Your task to perform on an android device: allow cookies in the chrome app Image 0: 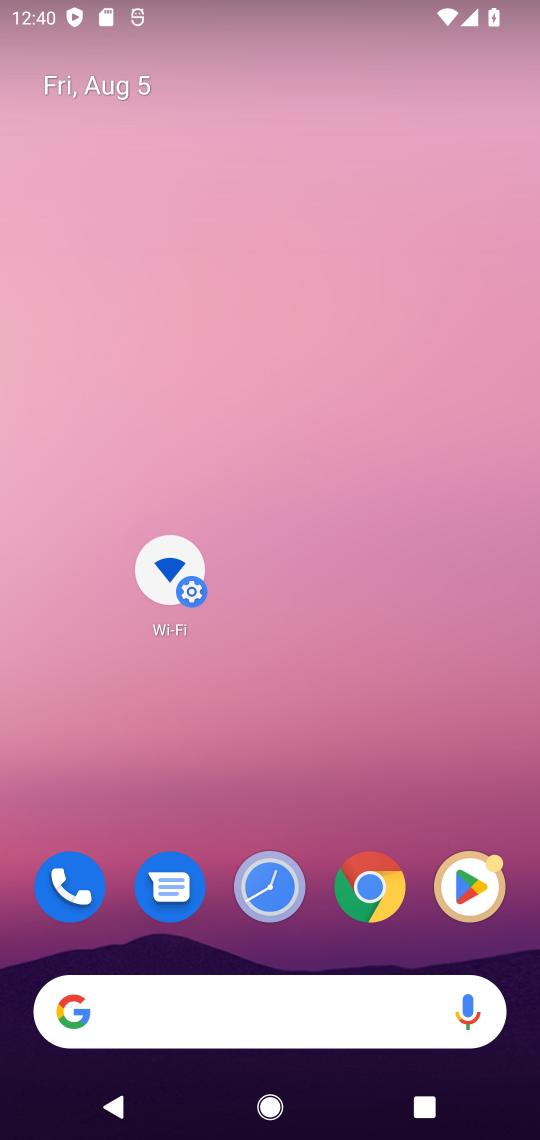
Step 0: click (365, 894)
Your task to perform on an android device: allow cookies in the chrome app Image 1: 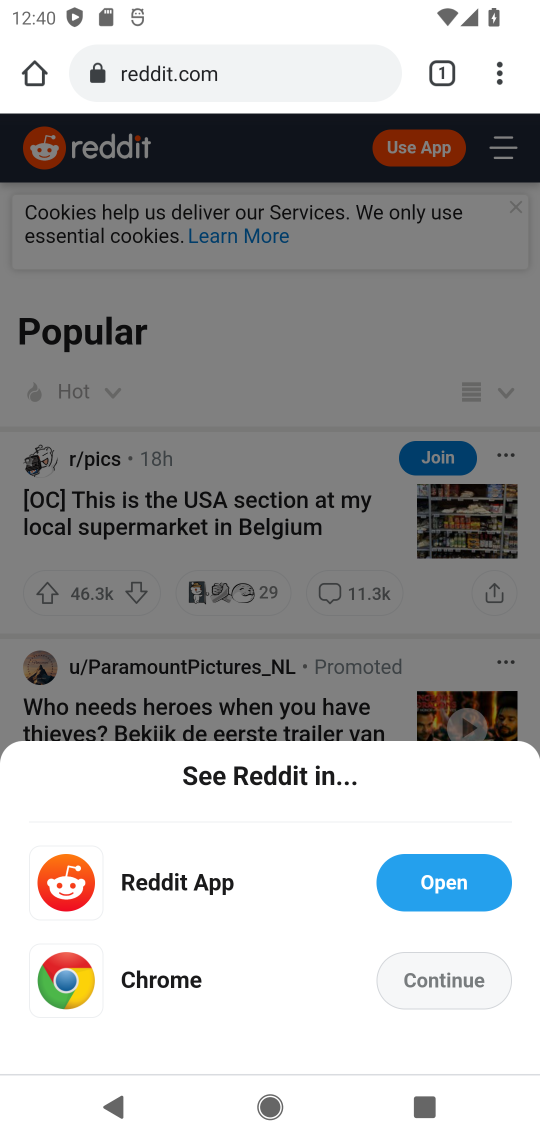
Step 1: drag from (488, 74) to (309, 891)
Your task to perform on an android device: allow cookies in the chrome app Image 2: 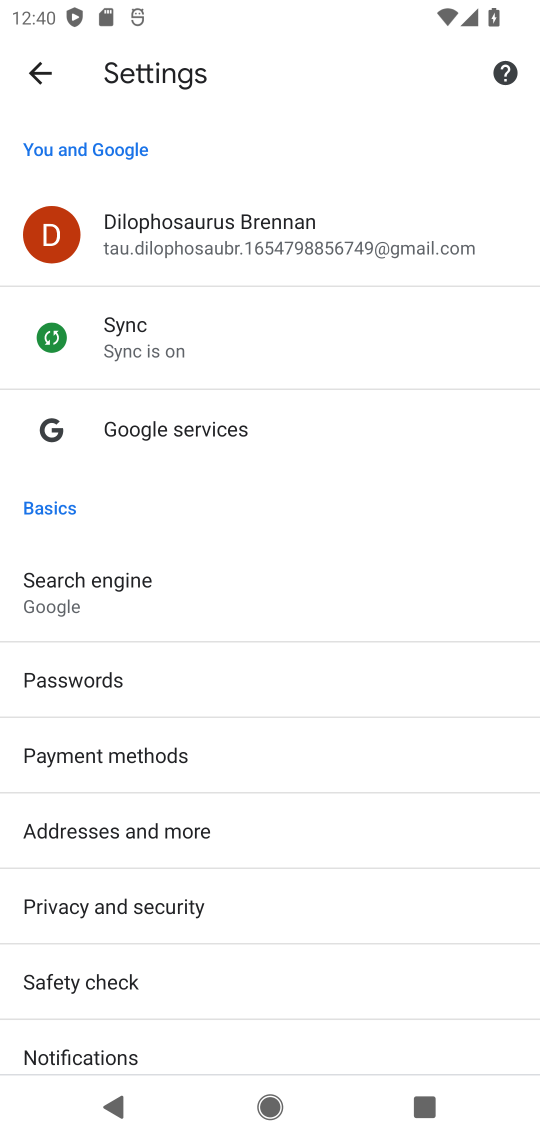
Step 2: drag from (265, 990) to (324, 352)
Your task to perform on an android device: allow cookies in the chrome app Image 3: 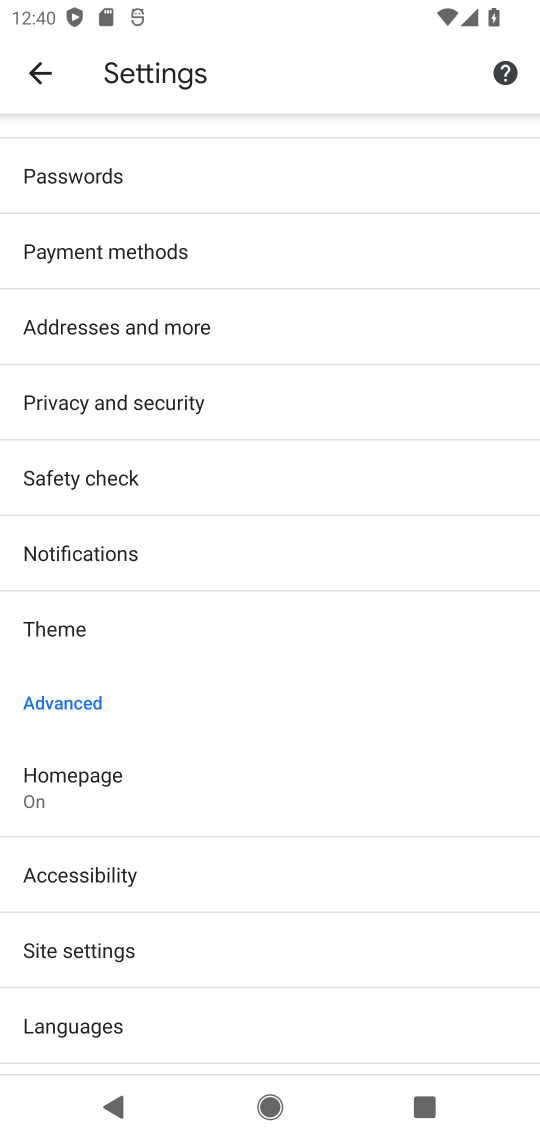
Step 3: click (192, 941)
Your task to perform on an android device: allow cookies in the chrome app Image 4: 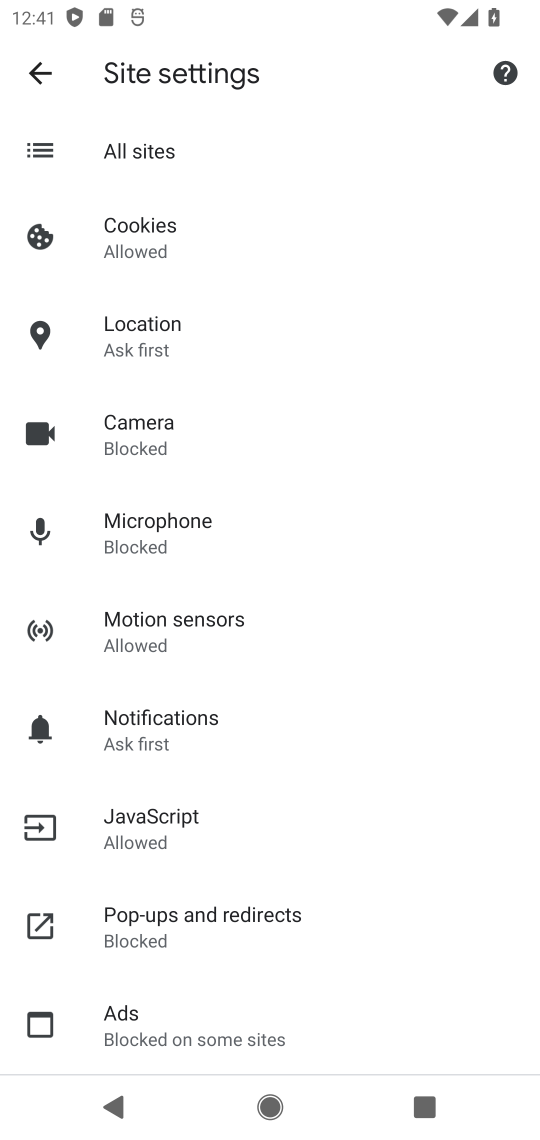
Step 4: click (171, 243)
Your task to perform on an android device: allow cookies in the chrome app Image 5: 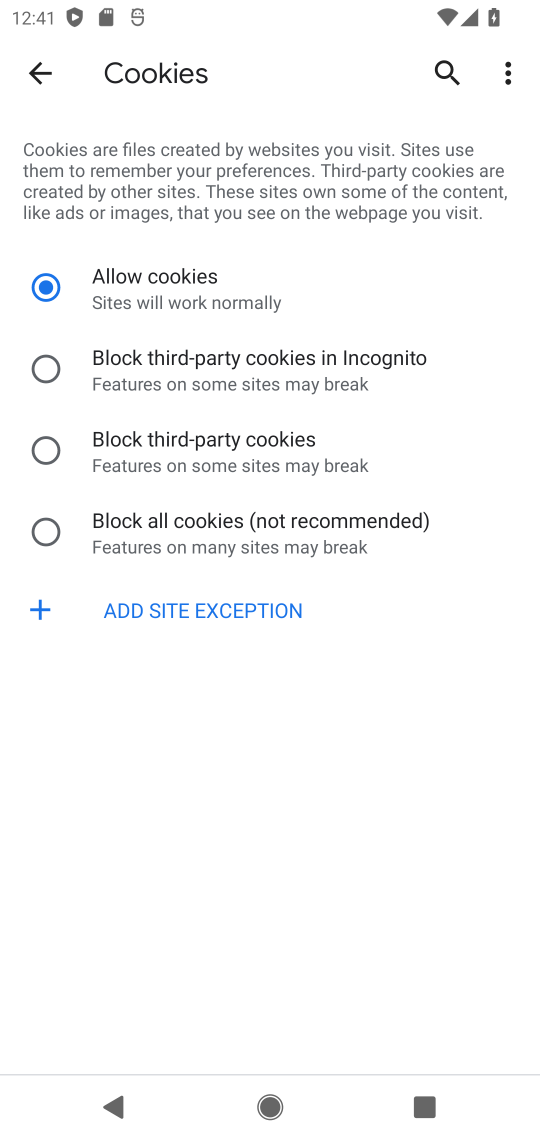
Step 5: click (196, 316)
Your task to perform on an android device: allow cookies in the chrome app Image 6: 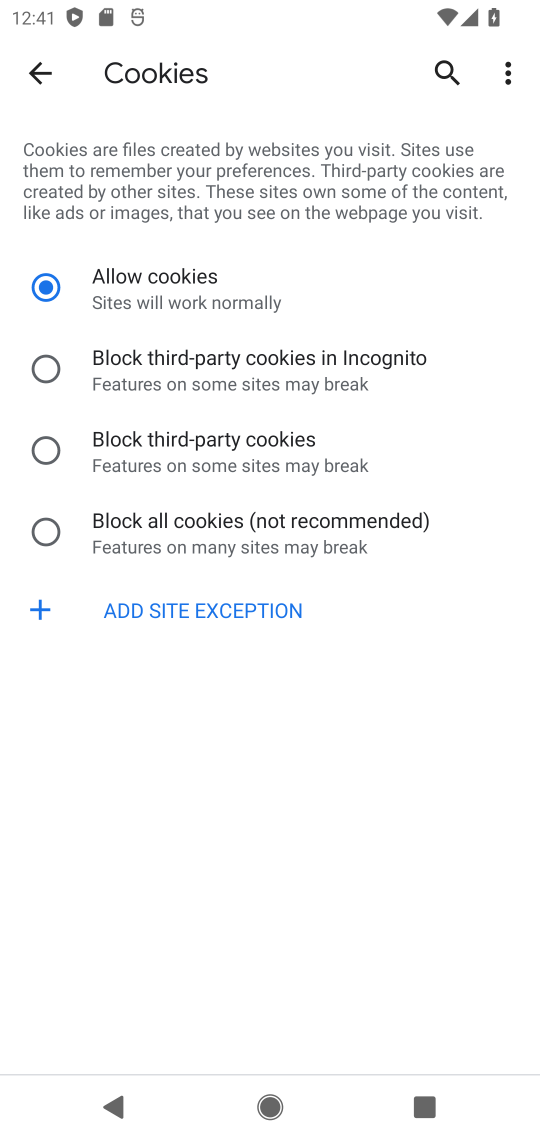
Step 6: task complete